Your task to perform on an android device: open app "Google Translate" (install if not already installed) Image 0: 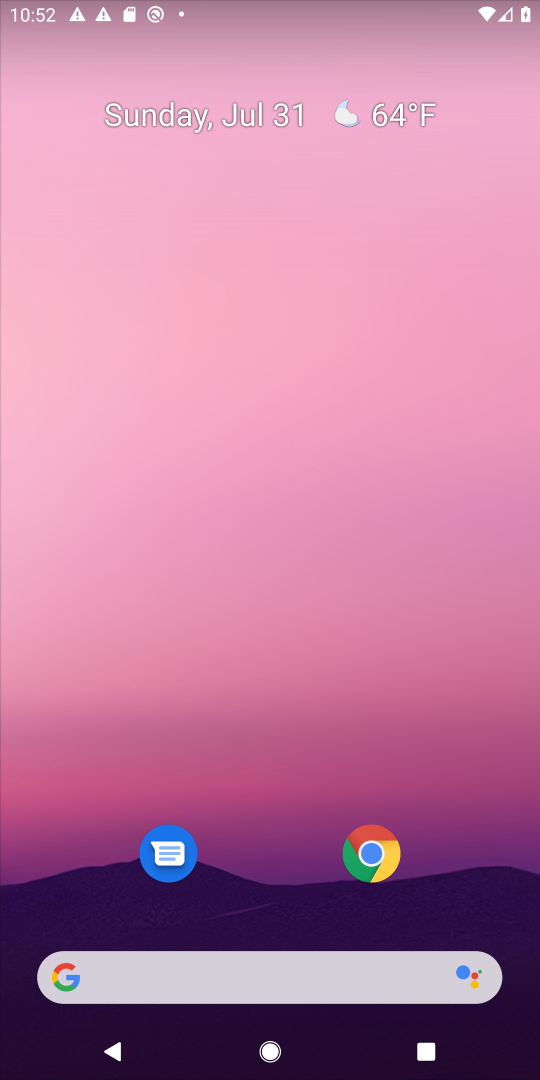
Step 0: drag from (297, 1074) to (297, 205)
Your task to perform on an android device: open app "Google Translate" (install if not already installed) Image 1: 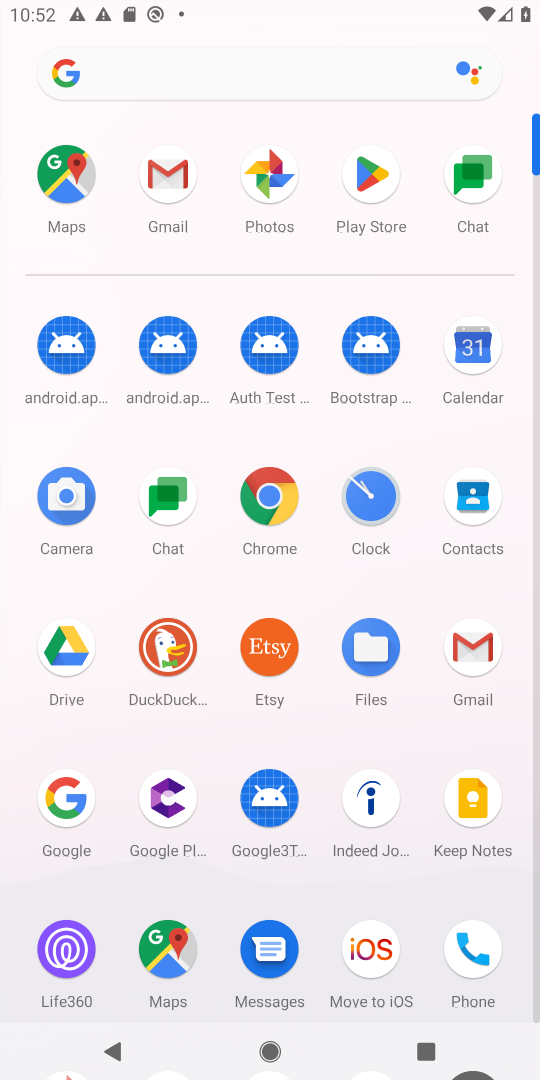
Step 1: click (366, 182)
Your task to perform on an android device: open app "Google Translate" (install if not already installed) Image 2: 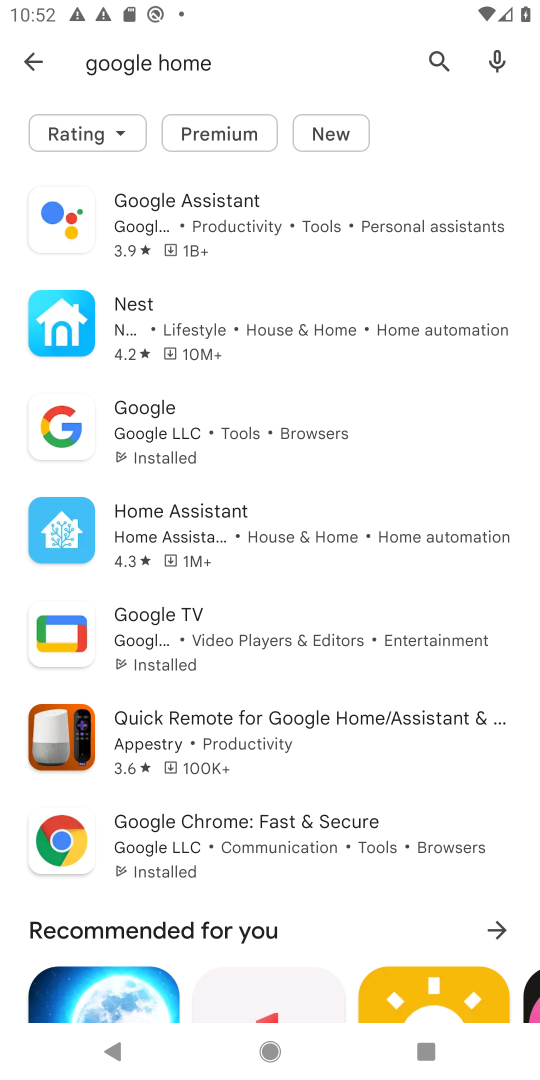
Step 2: click (431, 57)
Your task to perform on an android device: open app "Google Translate" (install if not already installed) Image 3: 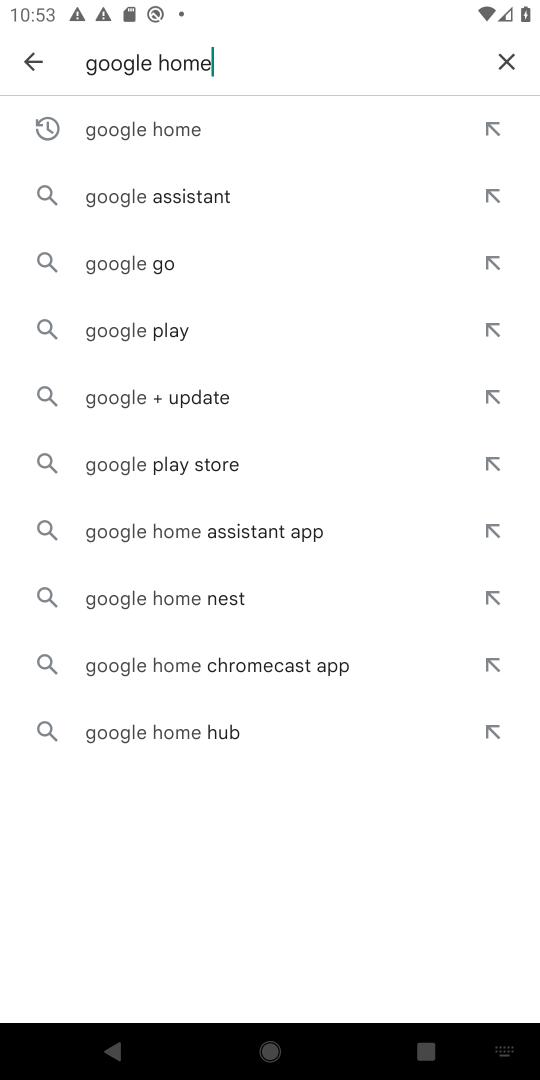
Step 3: click (500, 52)
Your task to perform on an android device: open app "Google Translate" (install if not already installed) Image 4: 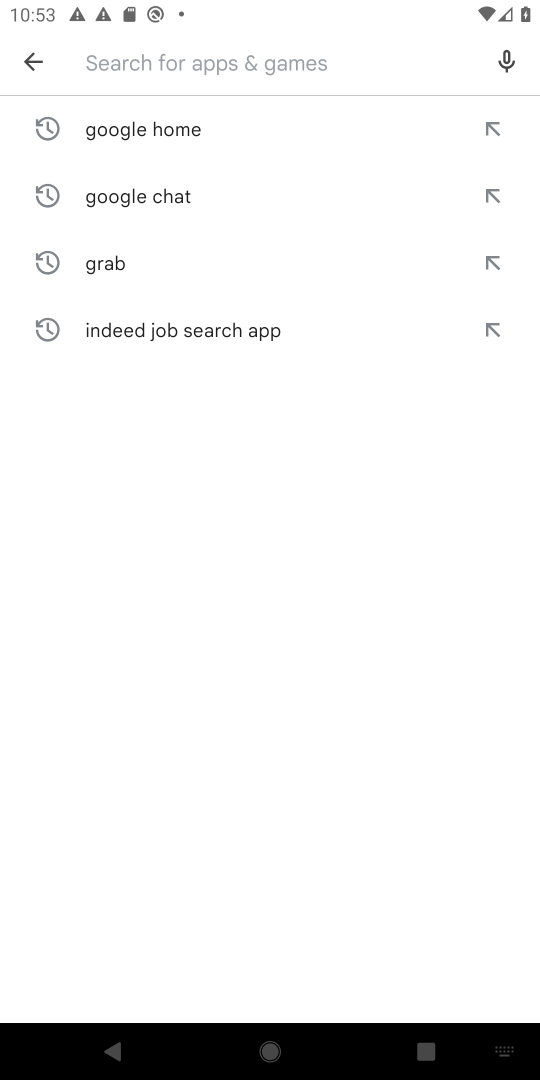
Step 4: type ""
Your task to perform on an android device: open app "Google Translate" (install if not already installed) Image 5: 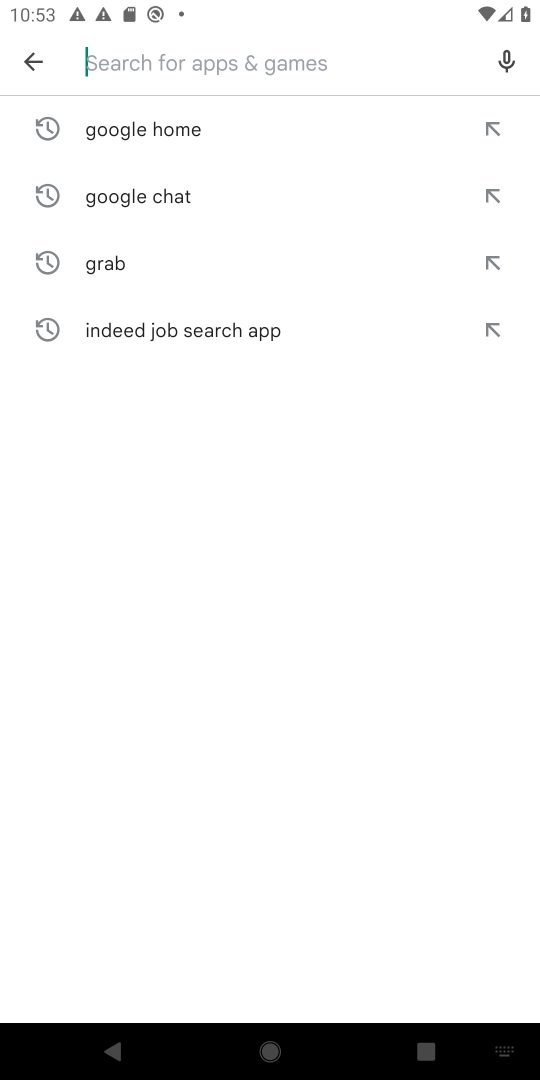
Step 5: type "Google Translate"
Your task to perform on an android device: open app "Google Translate" (install if not already installed) Image 6: 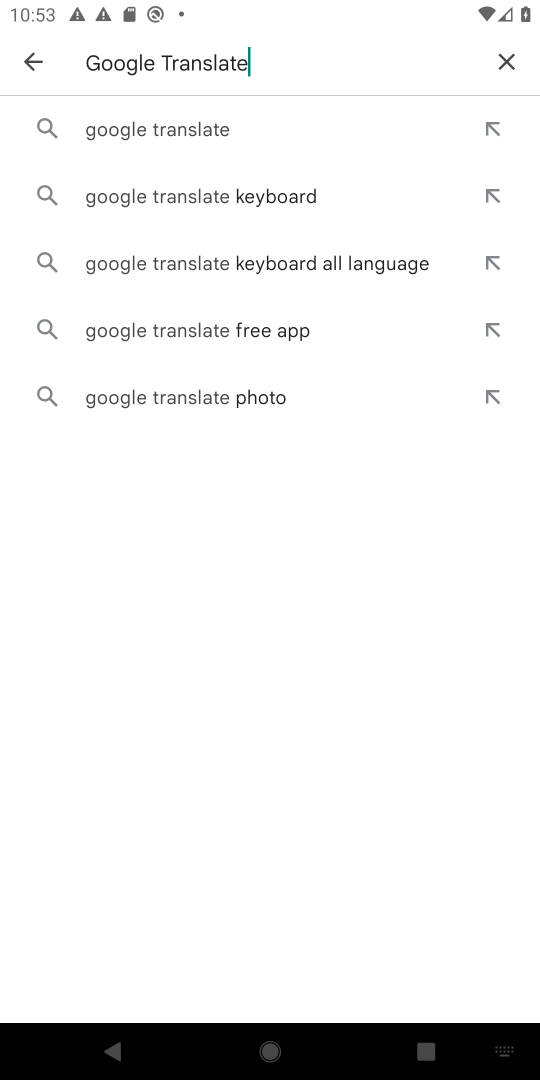
Step 6: click (191, 123)
Your task to perform on an android device: open app "Google Translate" (install if not already installed) Image 7: 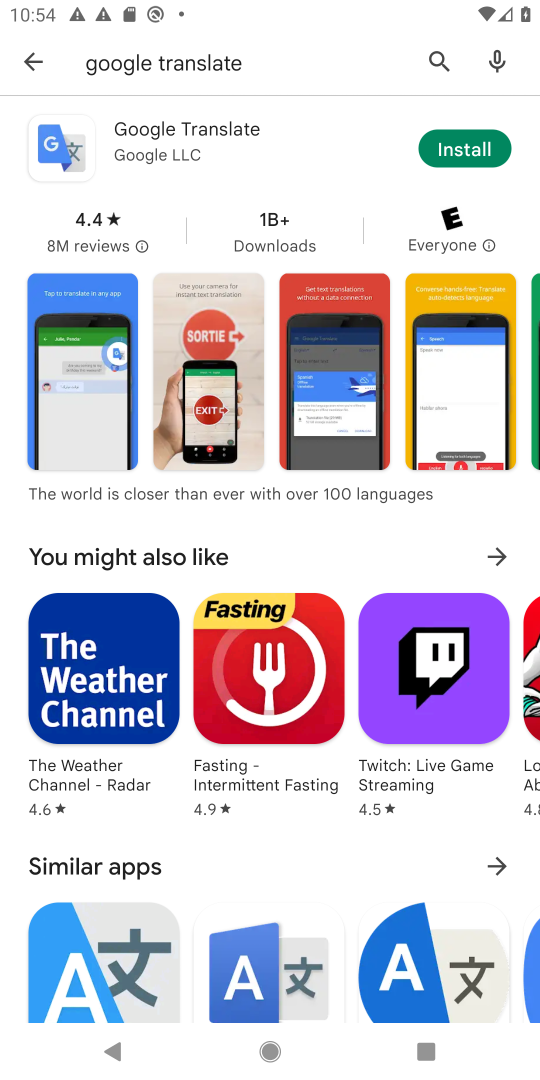
Step 7: click (469, 145)
Your task to perform on an android device: open app "Google Translate" (install if not already installed) Image 8: 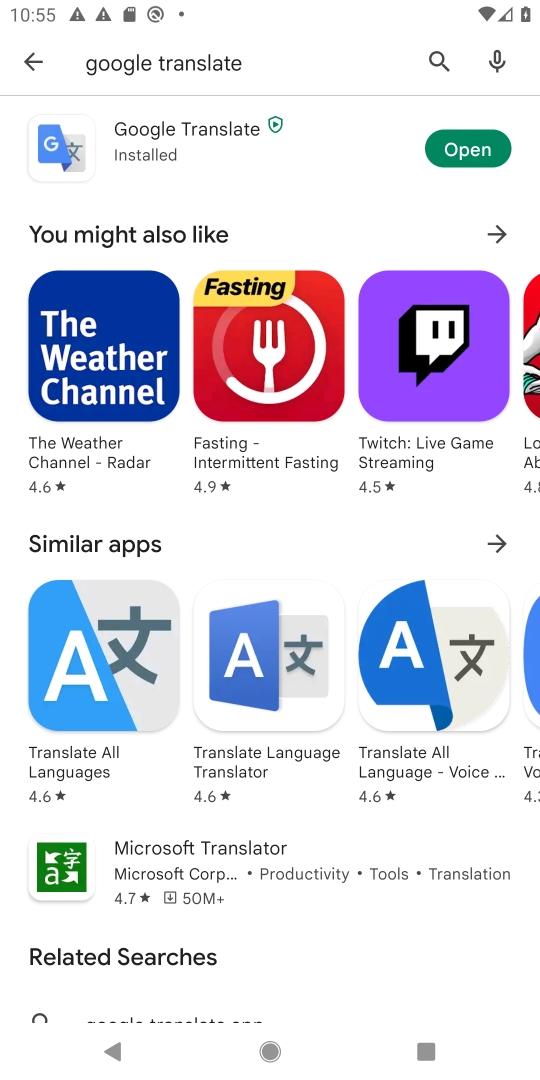
Step 8: task complete